Your task to perform on an android device: turn on improve location accuracy Image 0: 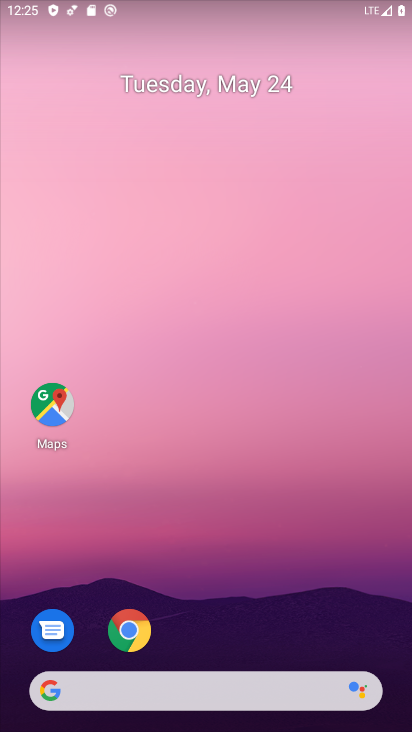
Step 0: drag from (330, 618) to (265, 6)
Your task to perform on an android device: turn on improve location accuracy Image 1: 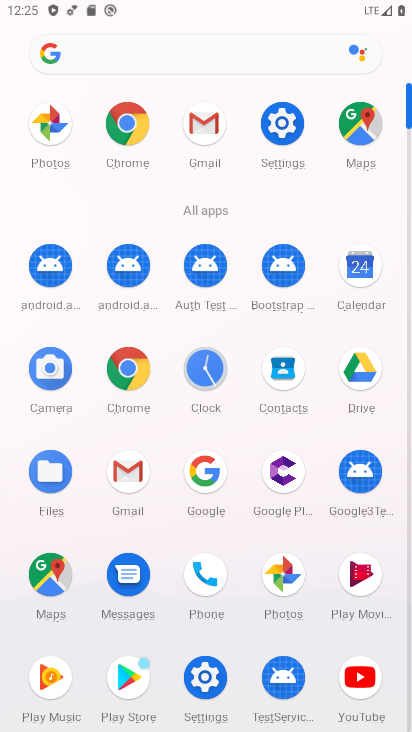
Step 1: click (272, 146)
Your task to perform on an android device: turn on improve location accuracy Image 2: 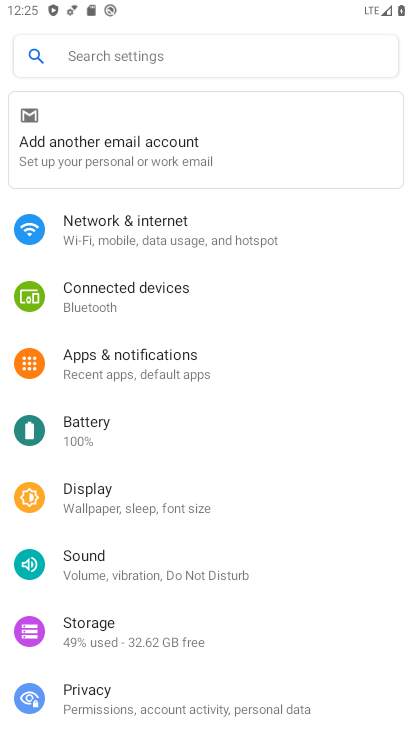
Step 2: drag from (137, 501) to (164, 248)
Your task to perform on an android device: turn on improve location accuracy Image 3: 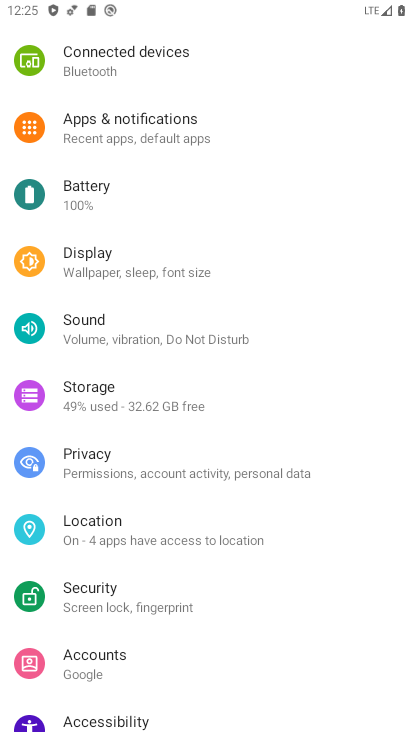
Step 3: click (101, 535)
Your task to perform on an android device: turn on improve location accuracy Image 4: 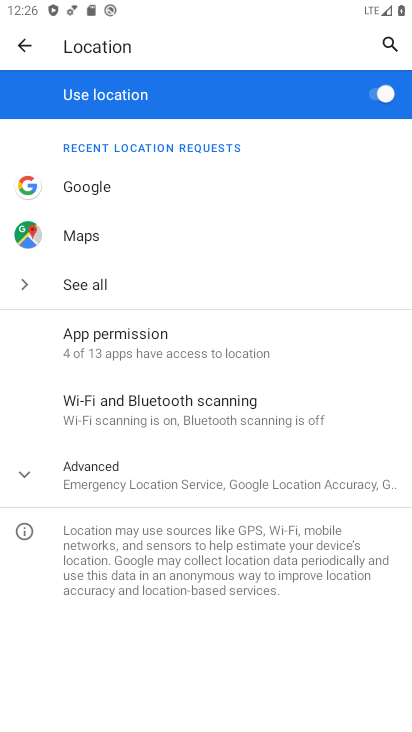
Step 4: click (155, 478)
Your task to perform on an android device: turn on improve location accuracy Image 5: 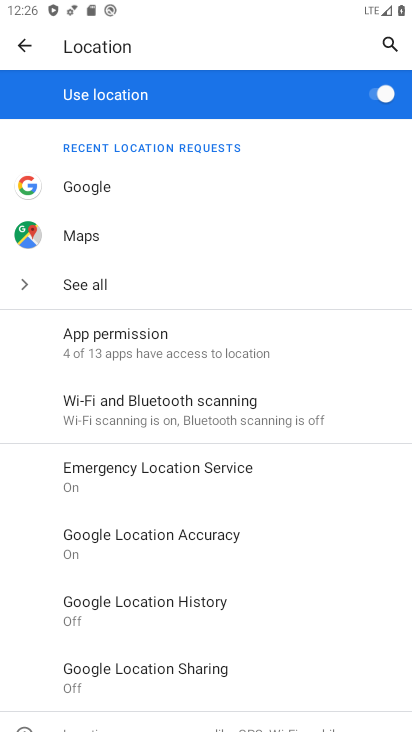
Step 5: click (172, 539)
Your task to perform on an android device: turn on improve location accuracy Image 6: 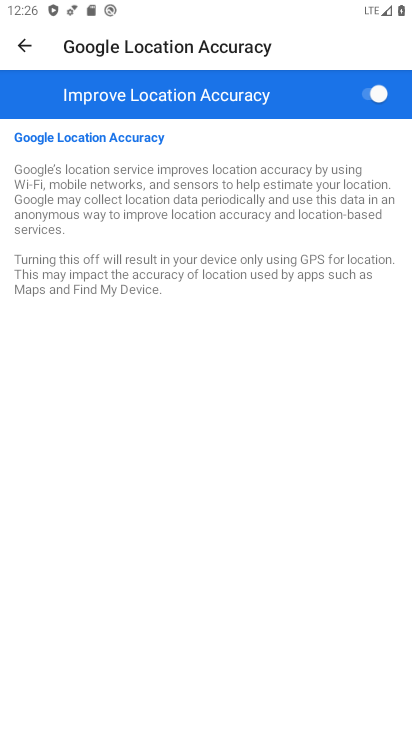
Step 6: click (172, 539)
Your task to perform on an android device: turn on improve location accuracy Image 7: 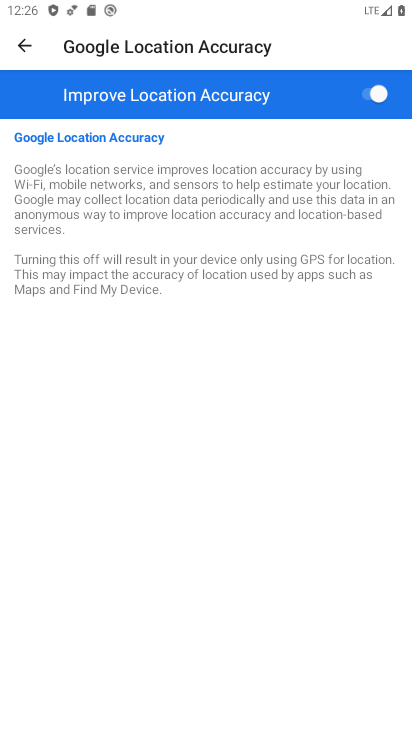
Step 7: click (172, 539)
Your task to perform on an android device: turn on improve location accuracy Image 8: 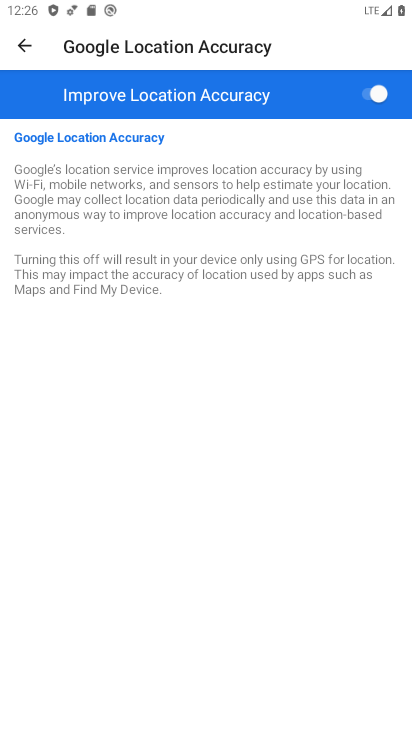
Step 8: click (172, 539)
Your task to perform on an android device: turn on improve location accuracy Image 9: 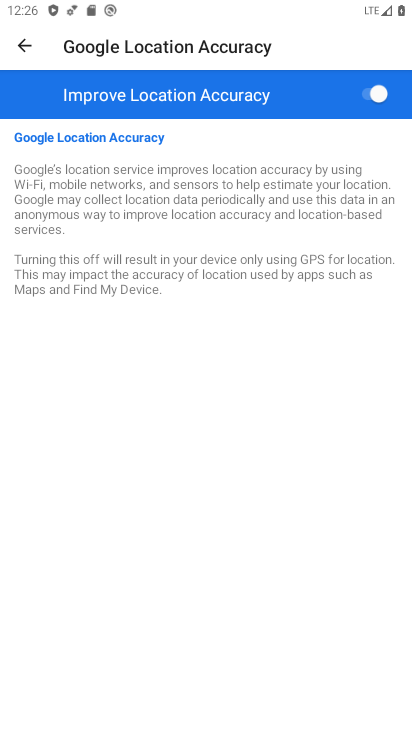
Step 9: click (390, 95)
Your task to perform on an android device: turn on improve location accuracy Image 10: 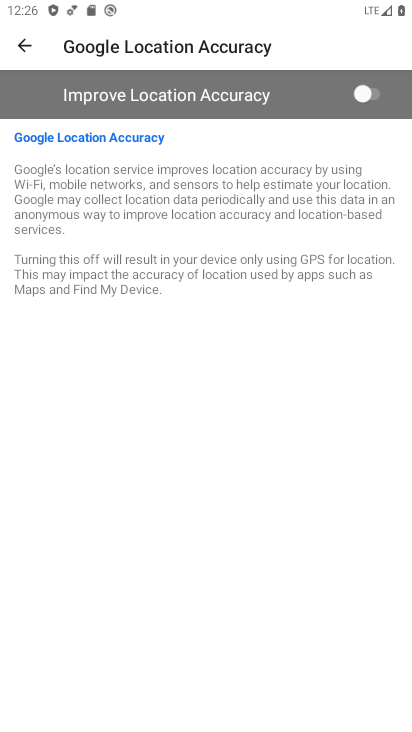
Step 10: task complete